Your task to perform on an android device: add a contact Image 0: 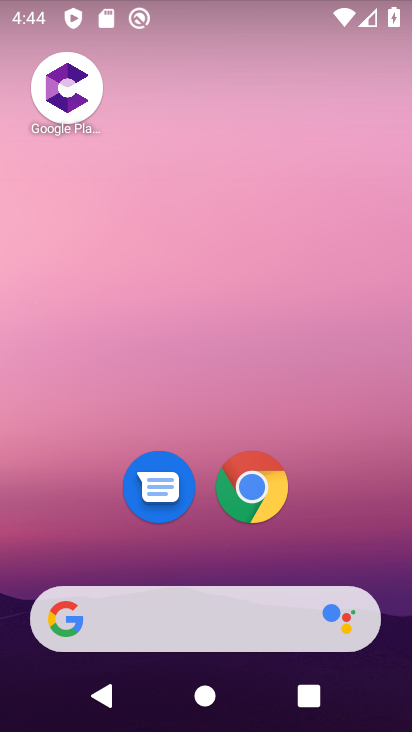
Step 0: drag from (325, 521) to (350, 138)
Your task to perform on an android device: add a contact Image 1: 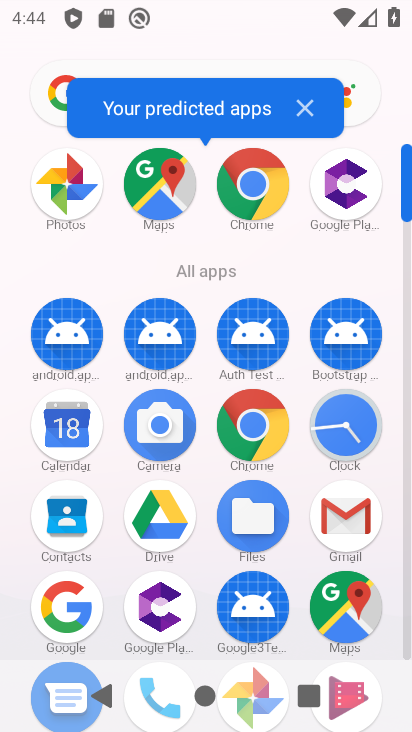
Step 1: click (403, 582)
Your task to perform on an android device: add a contact Image 2: 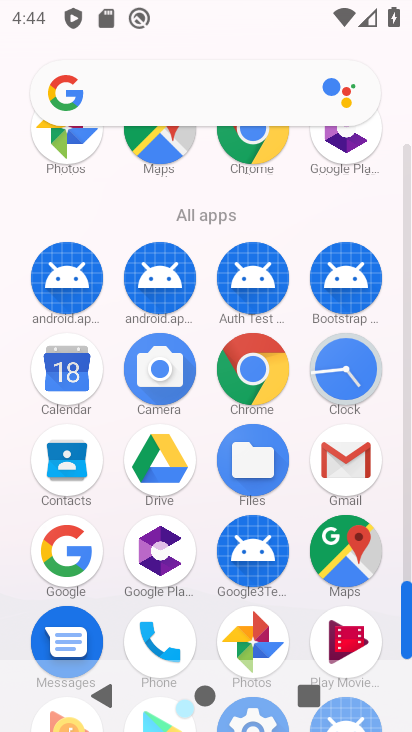
Step 2: click (74, 451)
Your task to perform on an android device: add a contact Image 3: 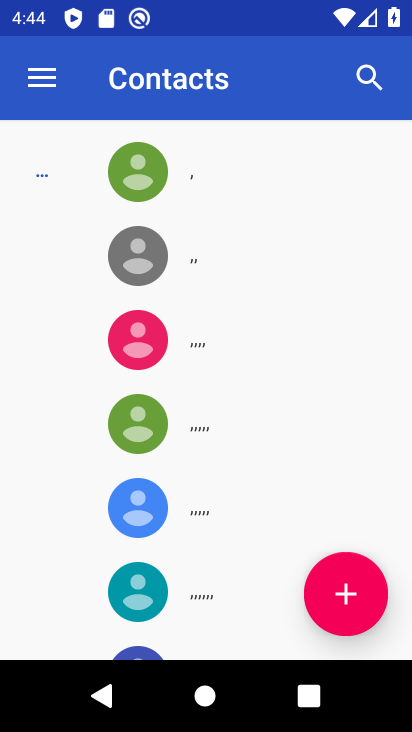
Step 3: click (373, 573)
Your task to perform on an android device: add a contact Image 4: 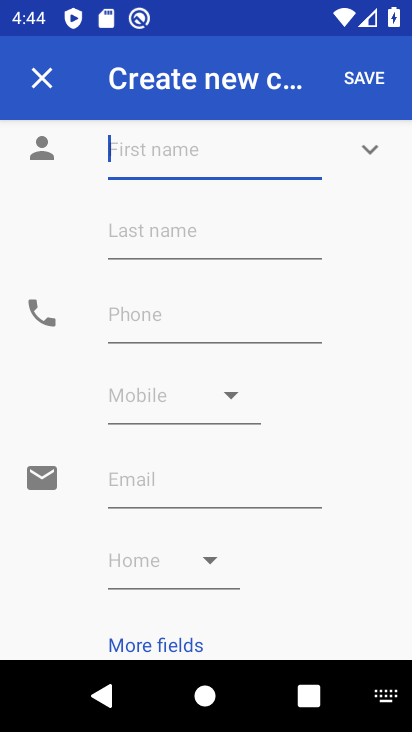
Step 4: type "kjjnjbj"
Your task to perform on an android device: add a contact Image 5: 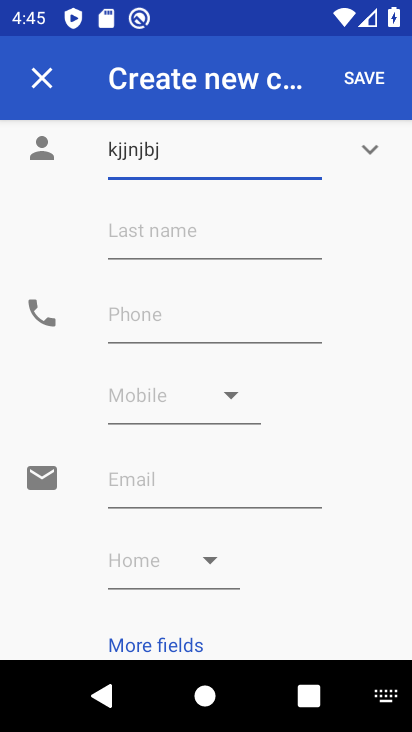
Step 5: click (216, 235)
Your task to perform on an android device: add a contact Image 6: 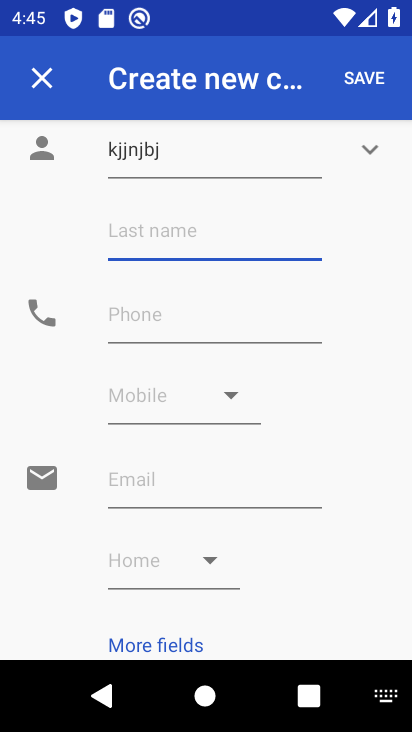
Step 6: type "kjjnkjk"
Your task to perform on an android device: add a contact Image 7: 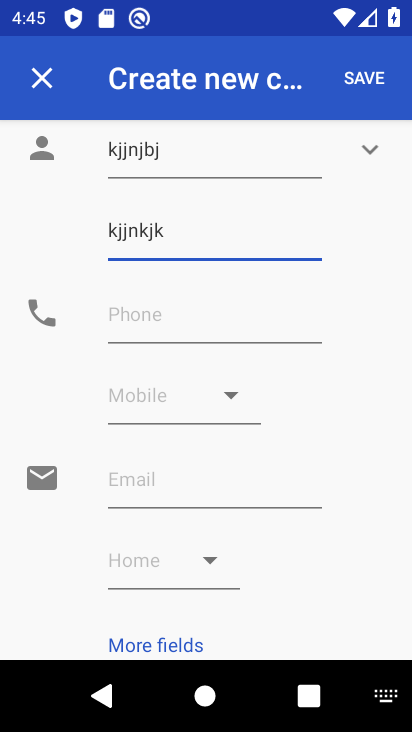
Step 7: click (220, 318)
Your task to perform on an android device: add a contact Image 8: 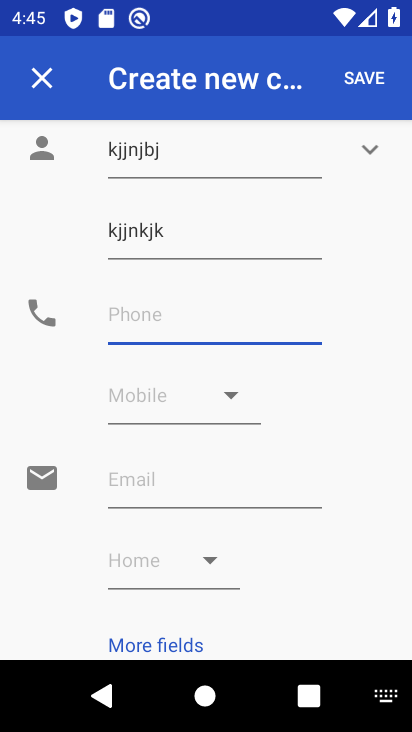
Step 8: type "7666586785"
Your task to perform on an android device: add a contact Image 9: 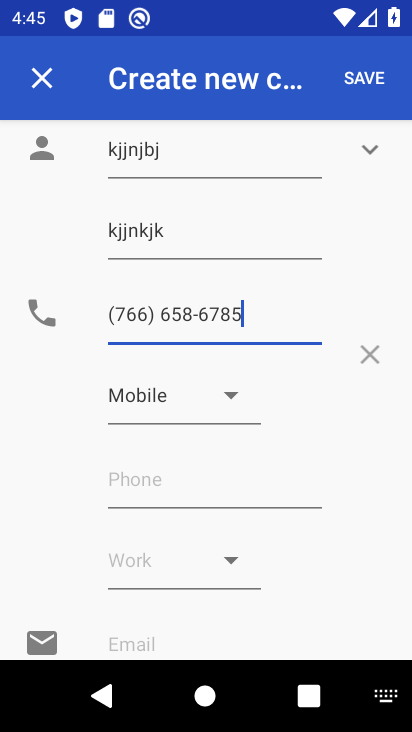
Step 9: click (360, 73)
Your task to perform on an android device: add a contact Image 10: 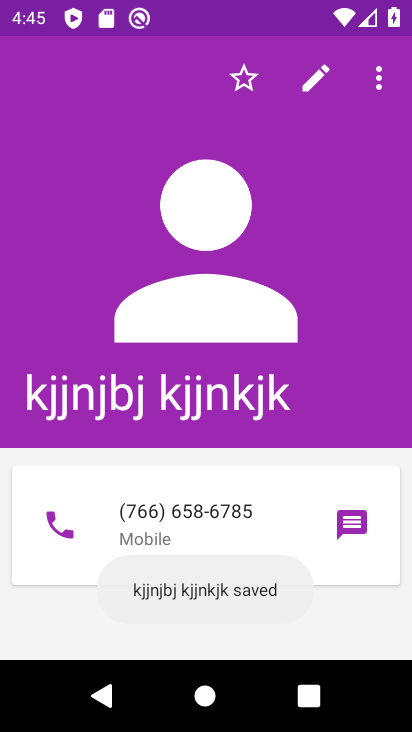
Step 10: task complete